Your task to perform on an android device: Open Youtube and go to the subscriptions tab Image 0: 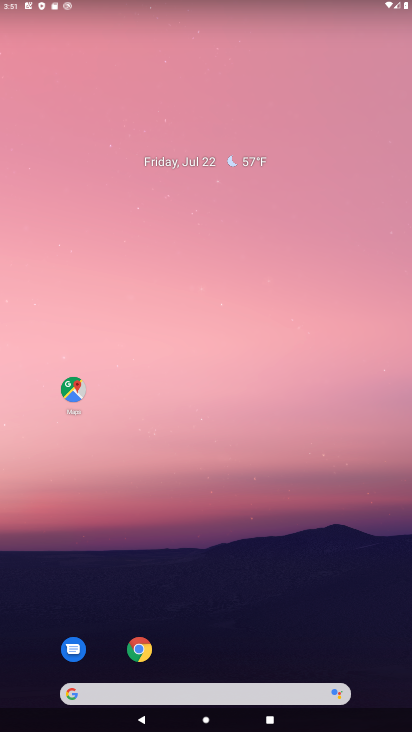
Step 0: drag from (50, 657) to (249, 219)
Your task to perform on an android device: Open Youtube and go to the subscriptions tab Image 1: 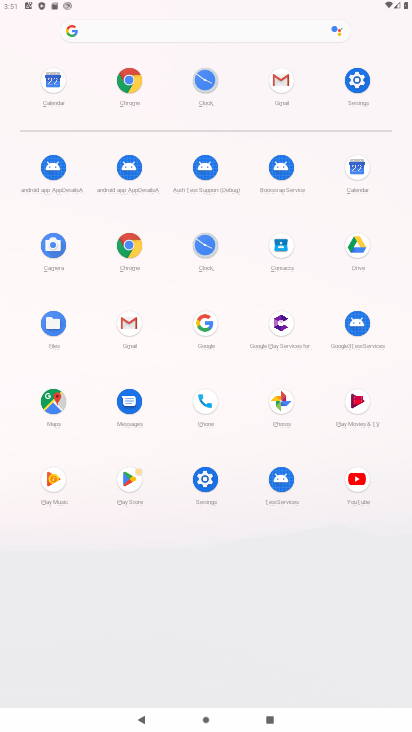
Step 1: click (347, 485)
Your task to perform on an android device: Open Youtube and go to the subscriptions tab Image 2: 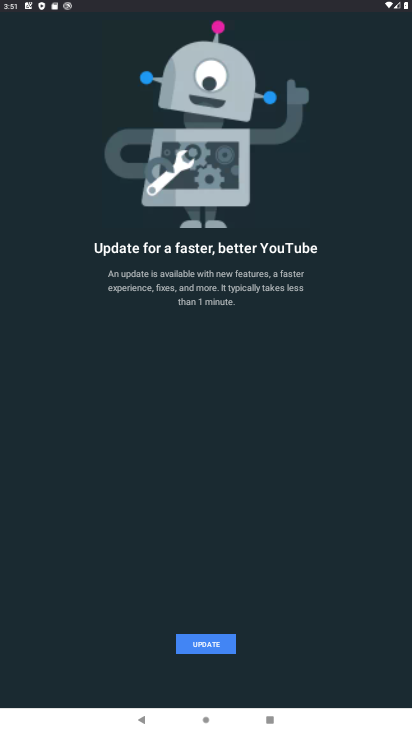
Step 2: click (212, 642)
Your task to perform on an android device: Open Youtube and go to the subscriptions tab Image 3: 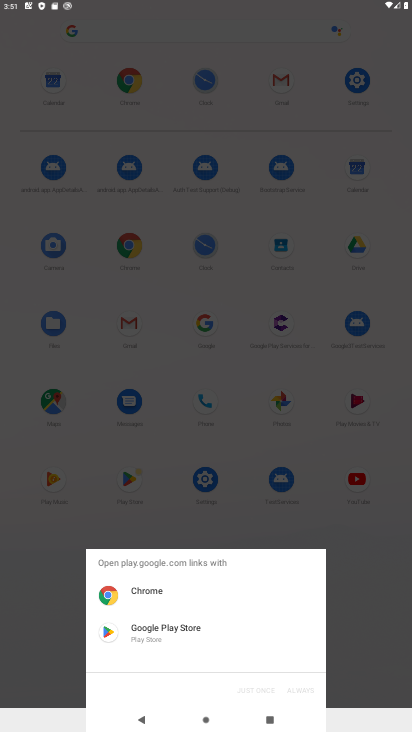
Step 3: click (139, 619)
Your task to perform on an android device: Open Youtube and go to the subscriptions tab Image 4: 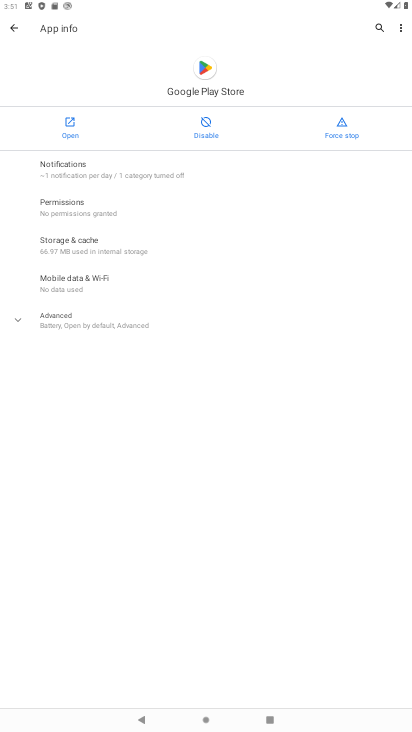
Step 4: task complete